Your task to perform on an android device: Check the news Image 0: 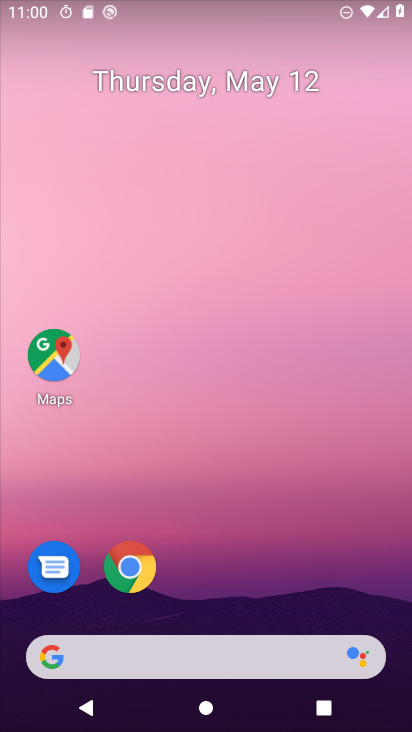
Step 0: drag from (167, 591) to (201, 2)
Your task to perform on an android device: Check the news Image 1: 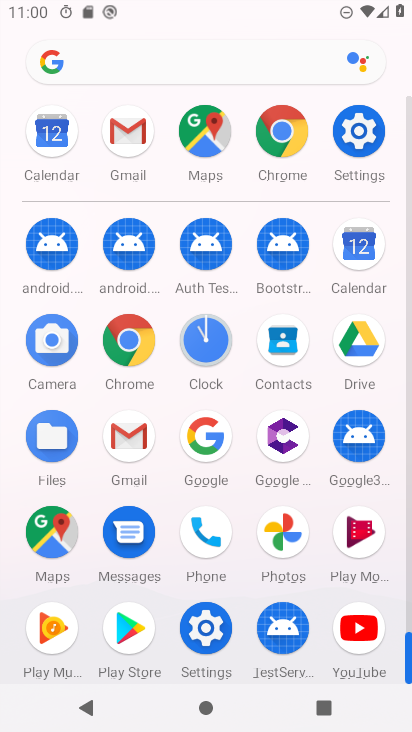
Step 1: click (348, 163)
Your task to perform on an android device: Check the news Image 2: 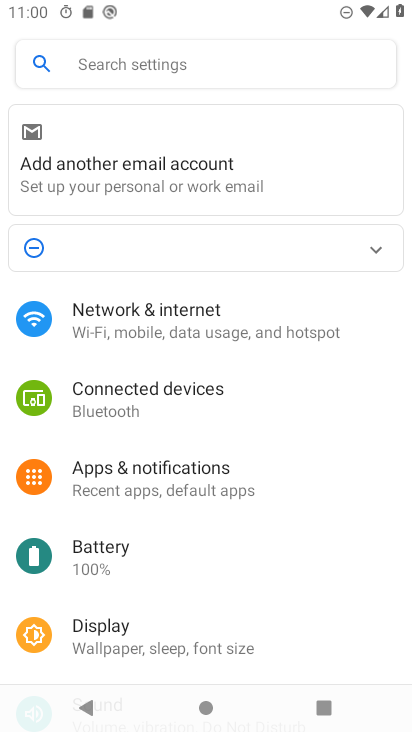
Step 2: drag from (175, 489) to (205, 188)
Your task to perform on an android device: Check the news Image 3: 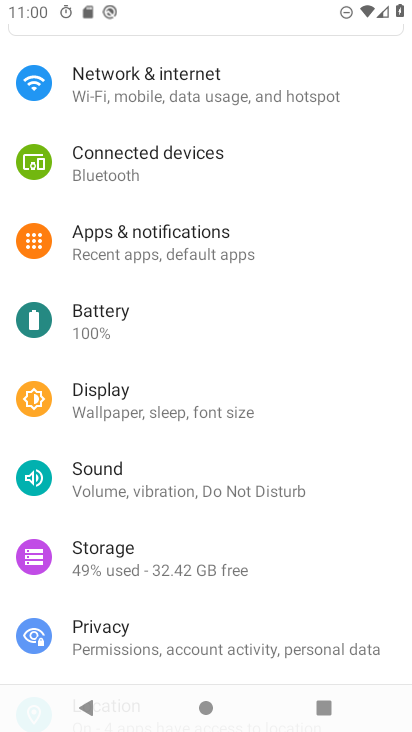
Step 3: press home button
Your task to perform on an android device: Check the news Image 4: 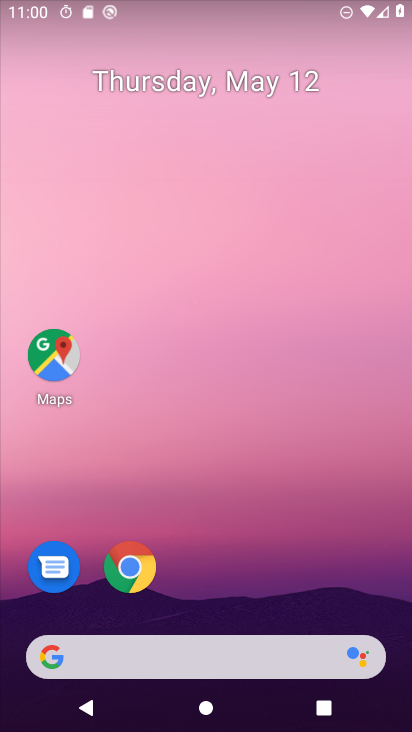
Step 4: drag from (226, 509) to (305, 177)
Your task to perform on an android device: Check the news Image 5: 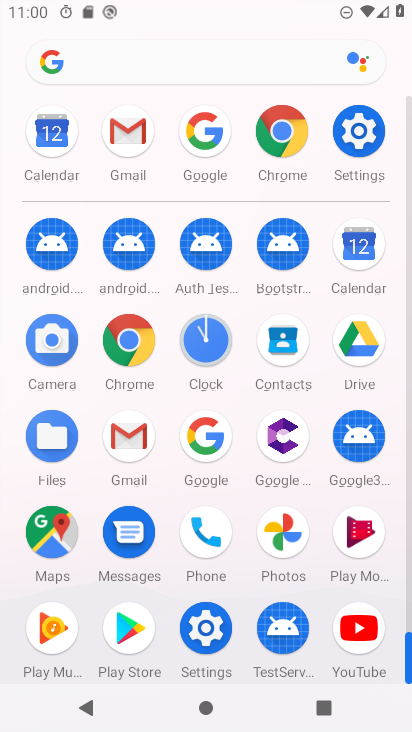
Step 5: click (209, 459)
Your task to perform on an android device: Check the news Image 6: 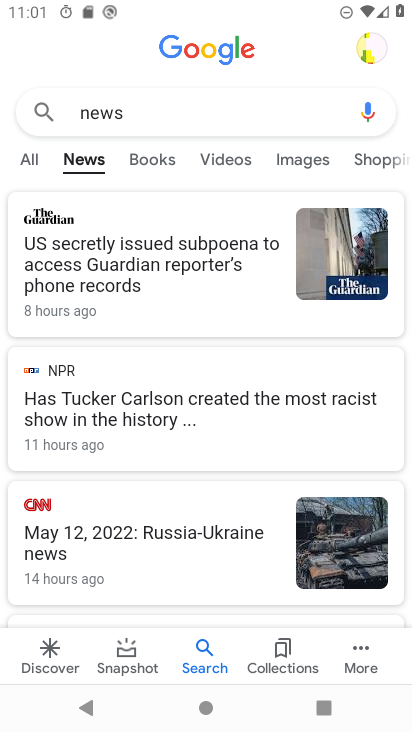
Step 6: task complete